Your task to perform on an android device: uninstall "Microsoft Excel" Image 0: 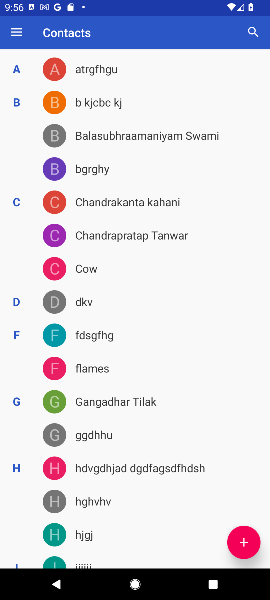
Step 0: press home button
Your task to perform on an android device: uninstall "Microsoft Excel" Image 1: 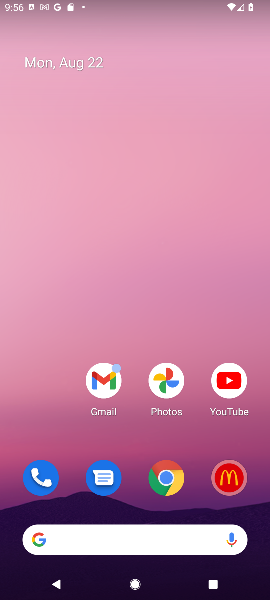
Step 1: drag from (135, 500) to (145, 133)
Your task to perform on an android device: uninstall "Microsoft Excel" Image 2: 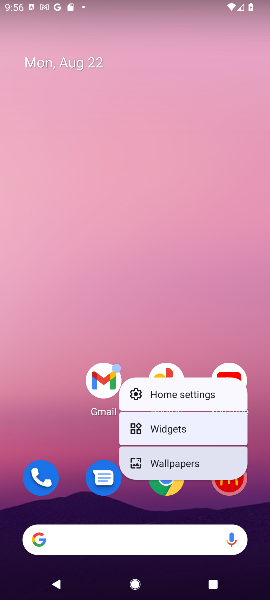
Step 2: click (140, 193)
Your task to perform on an android device: uninstall "Microsoft Excel" Image 3: 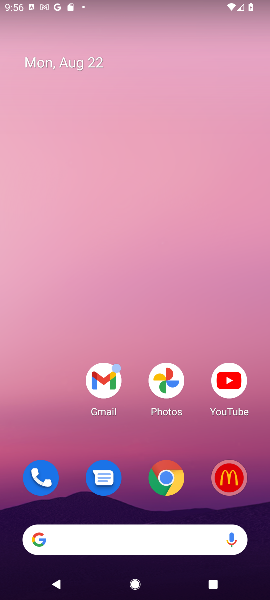
Step 3: drag from (137, 341) to (139, 145)
Your task to perform on an android device: uninstall "Microsoft Excel" Image 4: 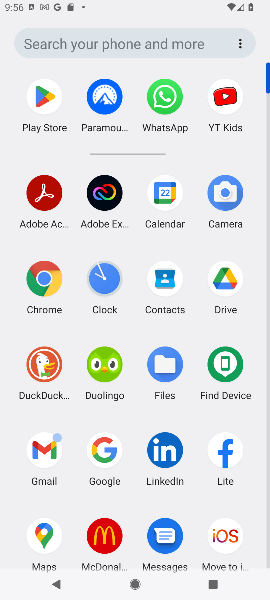
Step 4: click (63, 100)
Your task to perform on an android device: uninstall "Microsoft Excel" Image 5: 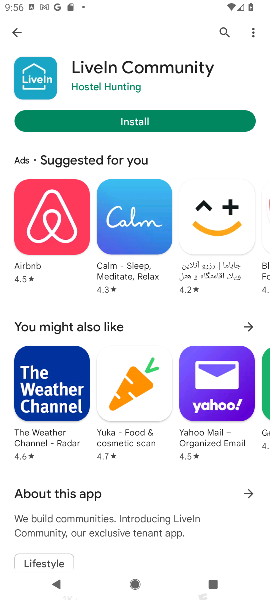
Step 5: click (224, 36)
Your task to perform on an android device: uninstall "Microsoft Excel" Image 6: 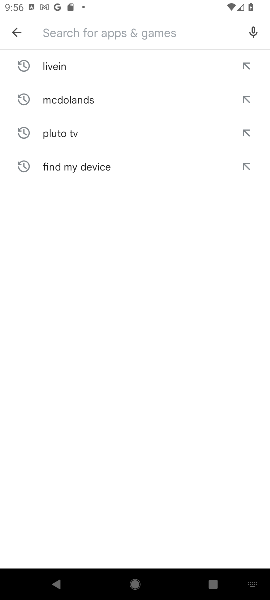
Step 6: type "excel"
Your task to perform on an android device: uninstall "Microsoft Excel" Image 7: 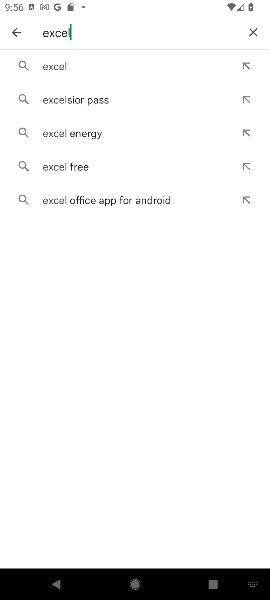
Step 7: click (72, 50)
Your task to perform on an android device: uninstall "Microsoft Excel" Image 8: 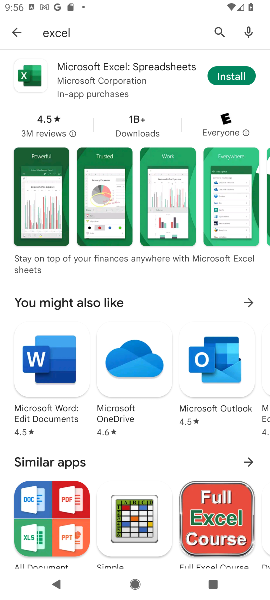
Step 8: click (211, 83)
Your task to perform on an android device: uninstall "Microsoft Excel" Image 9: 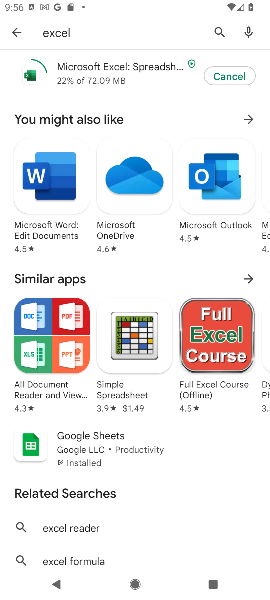
Step 9: task complete